Your task to perform on an android device: Go to Wikipedia Image 0: 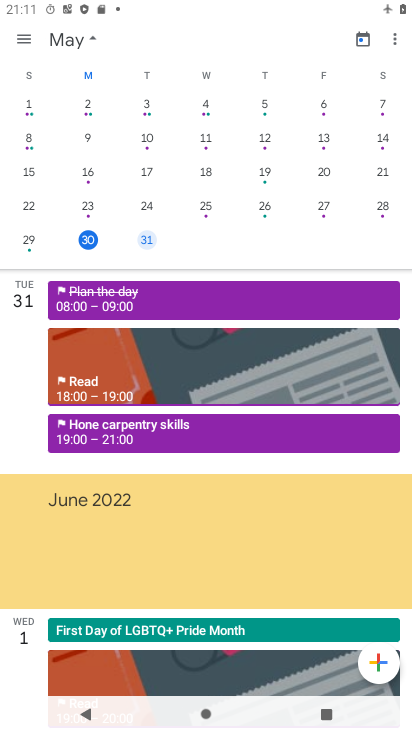
Step 0: press home button
Your task to perform on an android device: Go to Wikipedia Image 1: 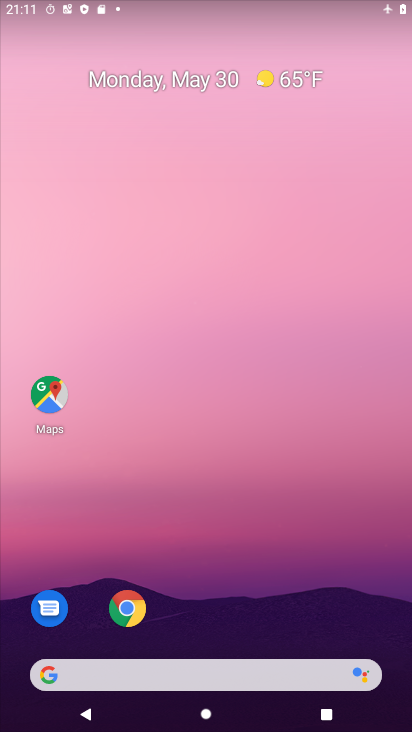
Step 1: click (128, 607)
Your task to perform on an android device: Go to Wikipedia Image 2: 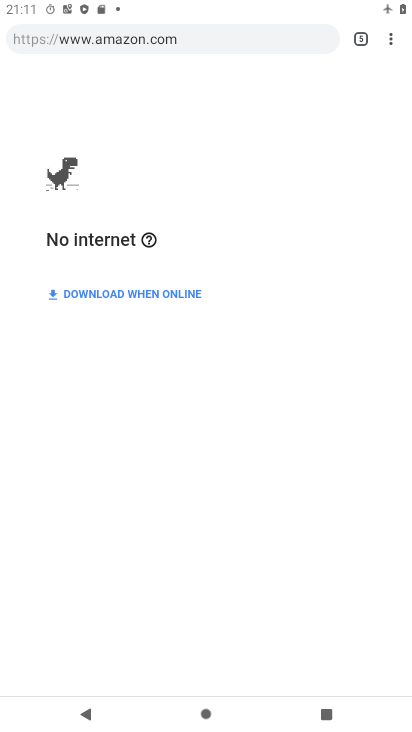
Step 2: click (355, 37)
Your task to perform on an android device: Go to Wikipedia Image 3: 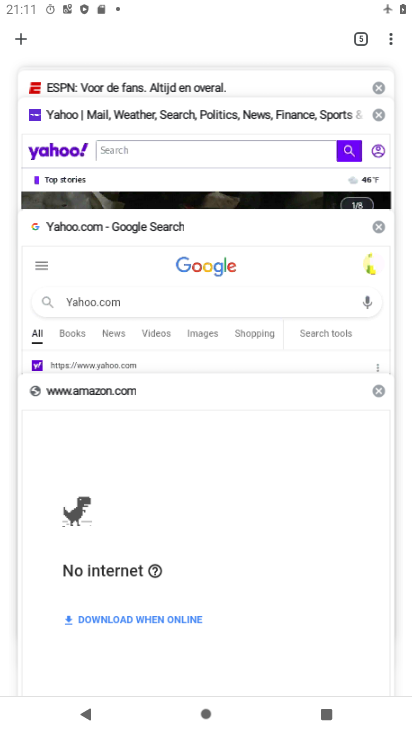
Step 3: click (21, 25)
Your task to perform on an android device: Go to Wikipedia Image 4: 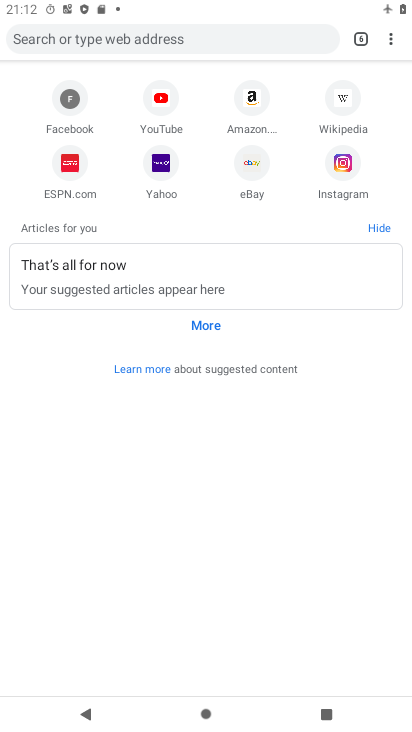
Step 4: click (189, 33)
Your task to perform on an android device: Go to Wikipedia Image 5: 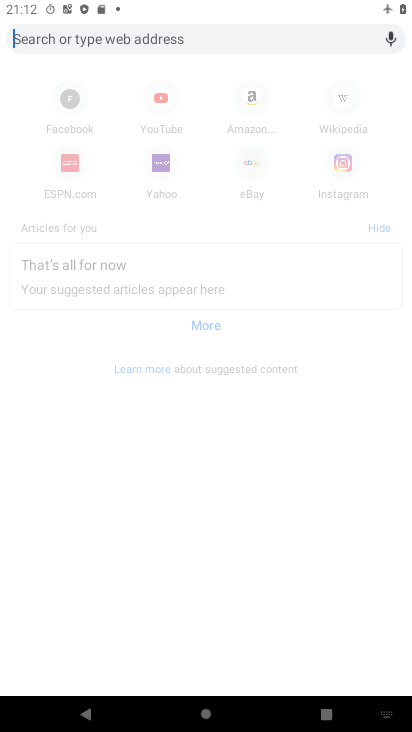
Step 5: type "Wikipedia"
Your task to perform on an android device: Go to Wikipedia Image 6: 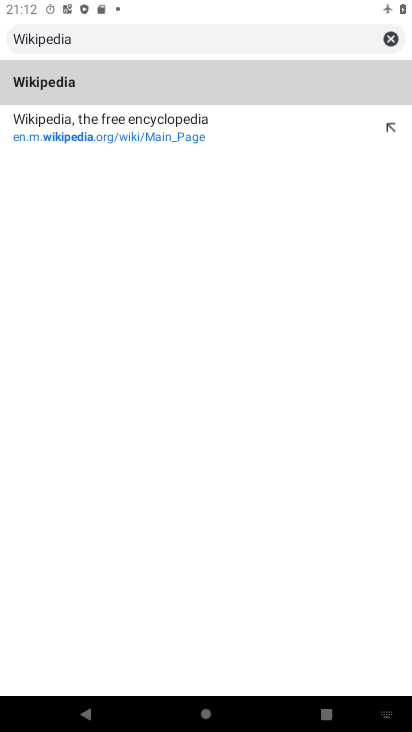
Step 6: click (206, 69)
Your task to perform on an android device: Go to Wikipedia Image 7: 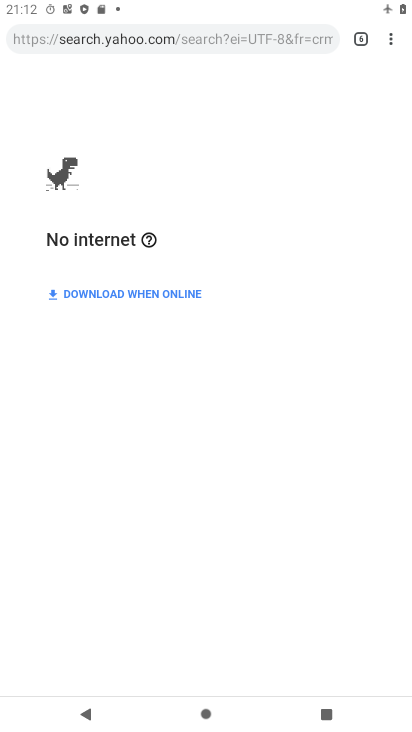
Step 7: task complete